Your task to perform on an android device: Is it going to rain today? Image 0: 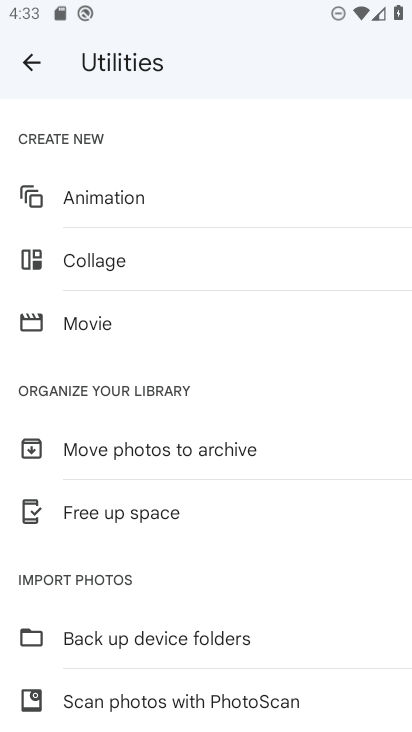
Step 0: press home button
Your task to perform on an android device: Is it going to rain today? Image 1: 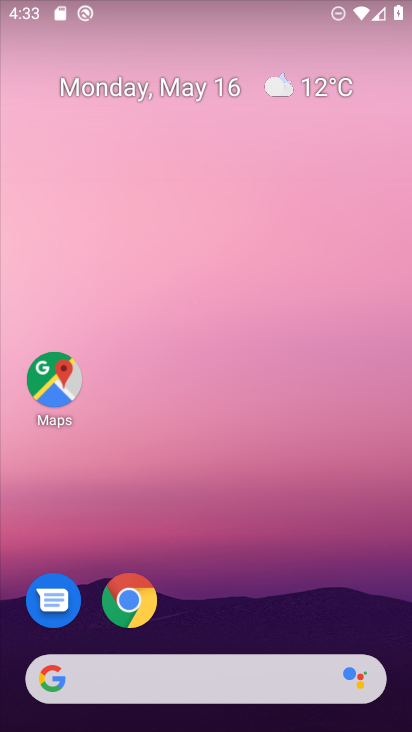
Step 1: click (327, 86)
Your task to perform on an android device: Is it going to rain today? Image 2: 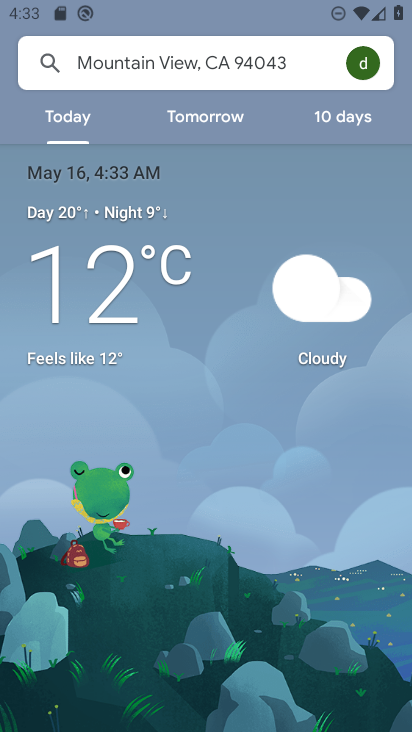
Step 2: task complete